Your task to perform on an android device: turn on wifi Image 0: 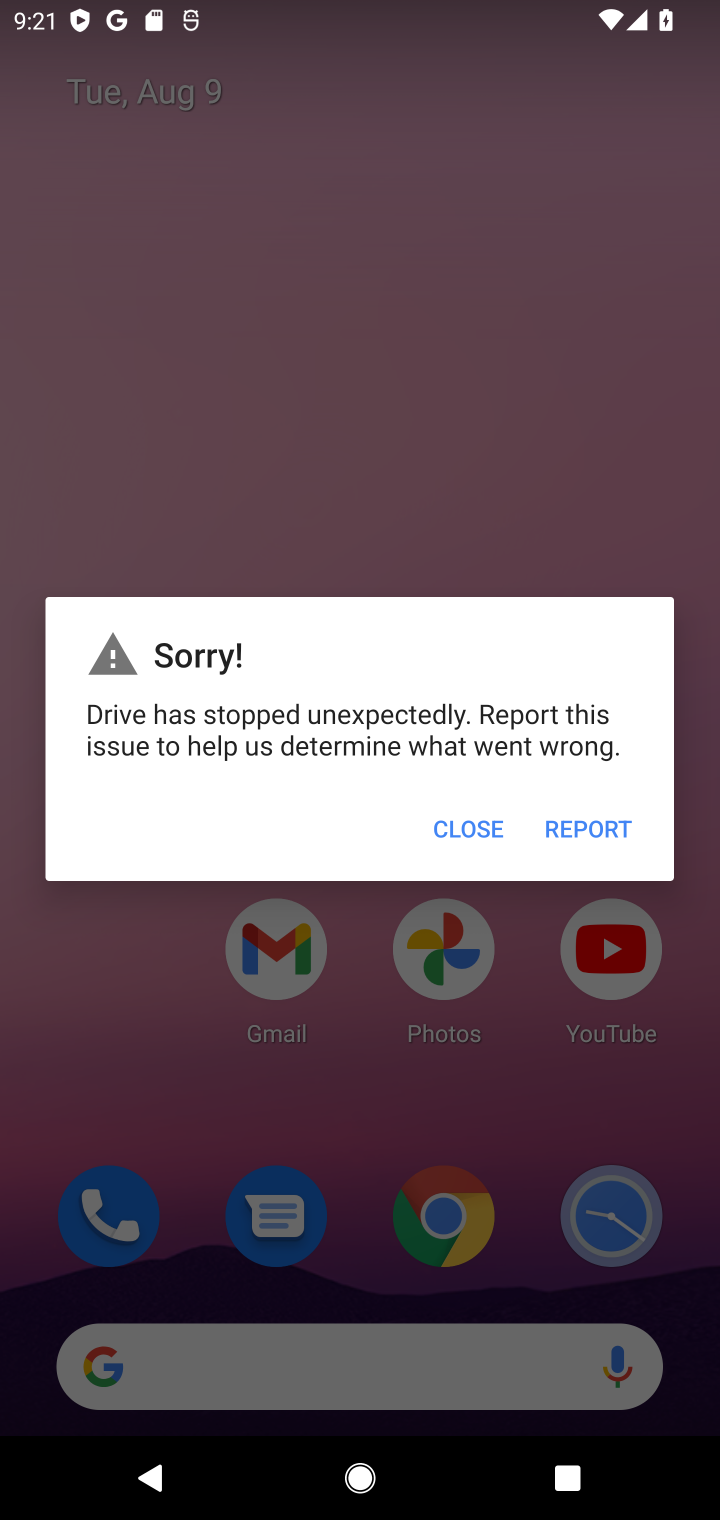
Step 0: click (474, 828)
Your task to perform on an android device: turn on wifi Image 1: 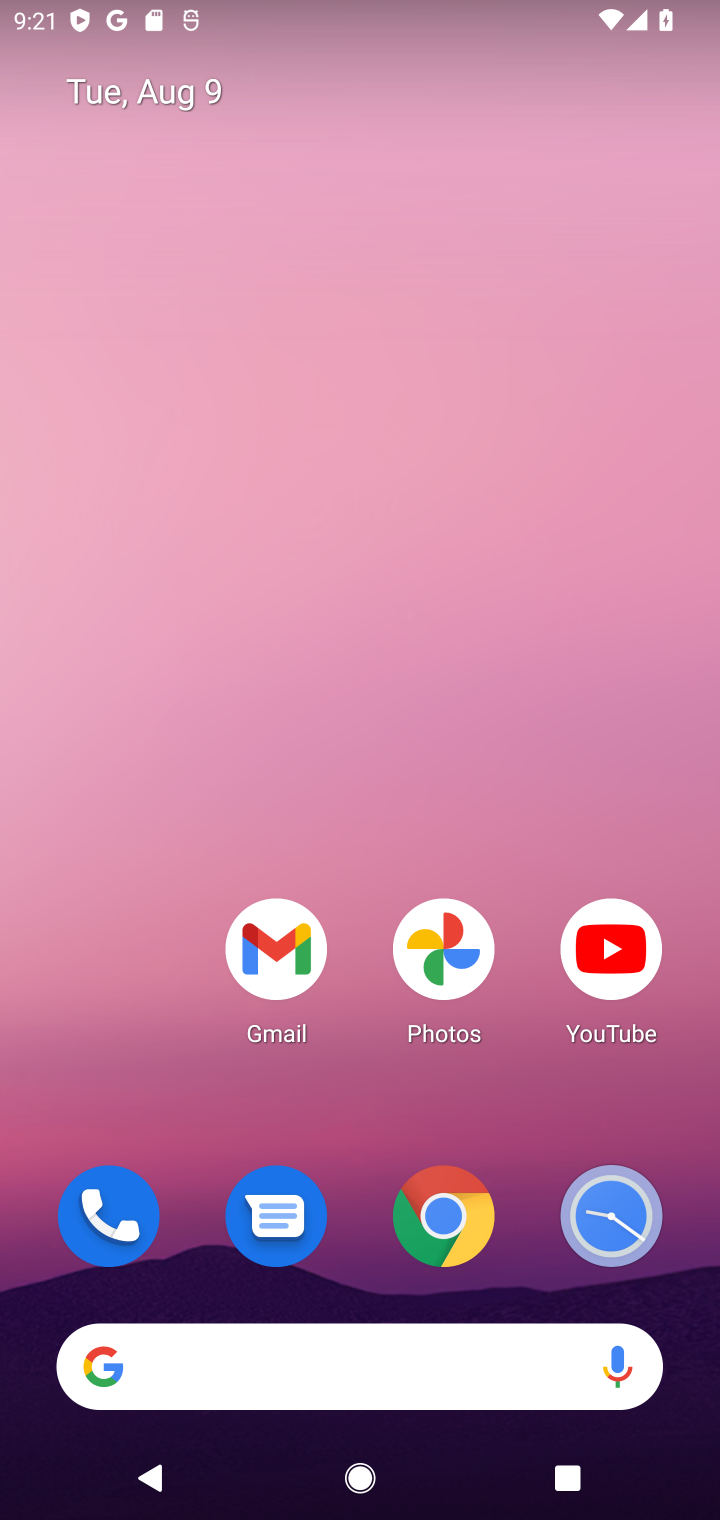
Step 1: drag from (346, 994) to (473, 251)
Your task to perform on an android device: turn on wifi Image 2: 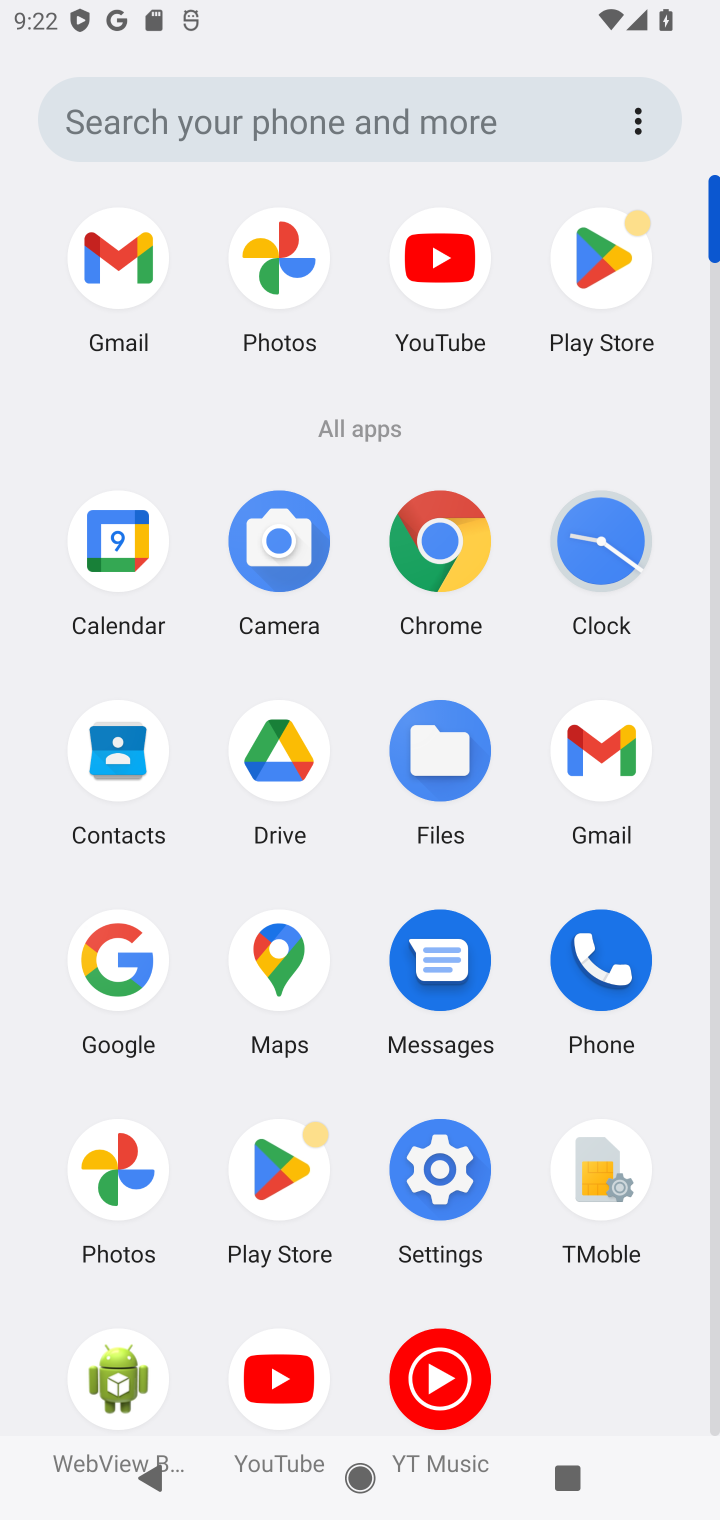
Step 2: click (438, 1165)
Your task to perform on an android device: turn on wifi Image 3: 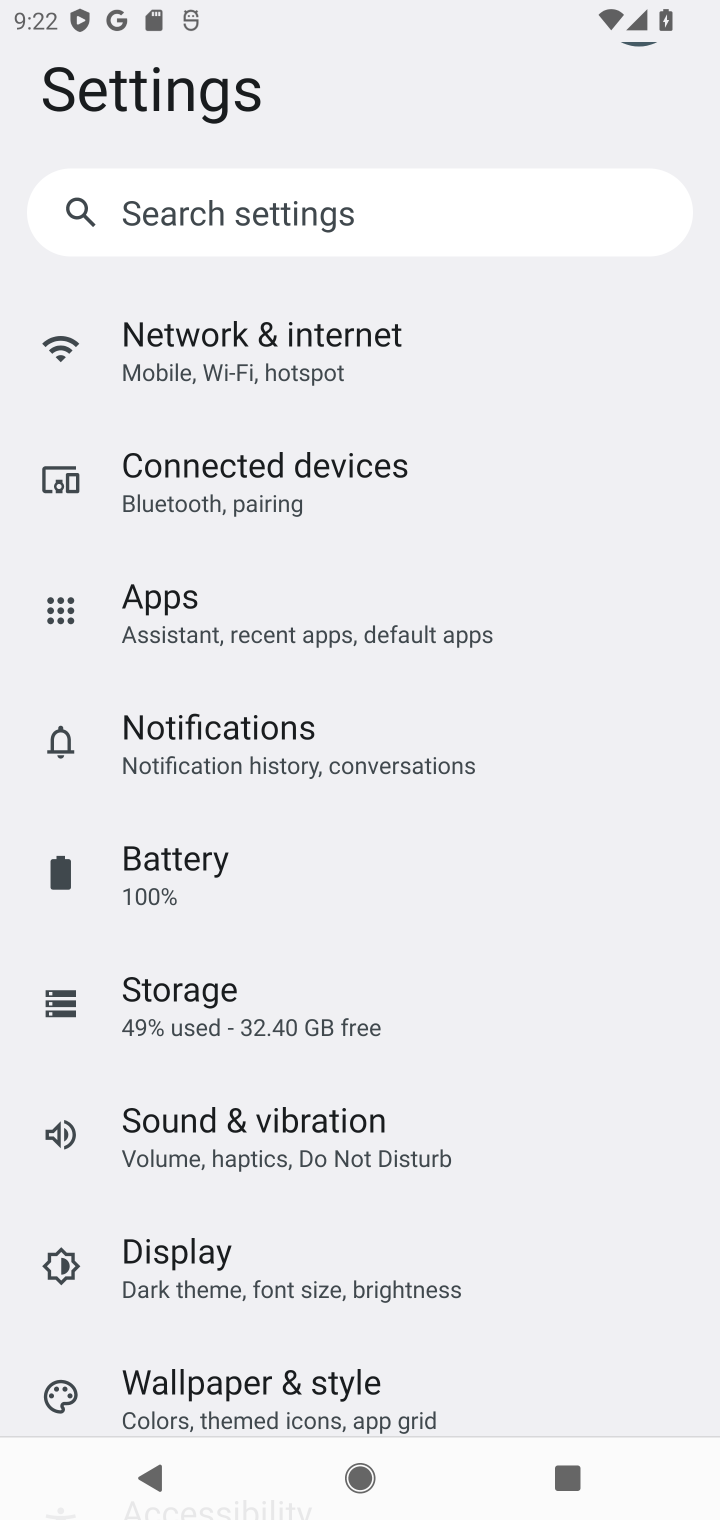
Step 3: click (206, 350)
Your task to perform on an android device: turn on wifi Image 4: 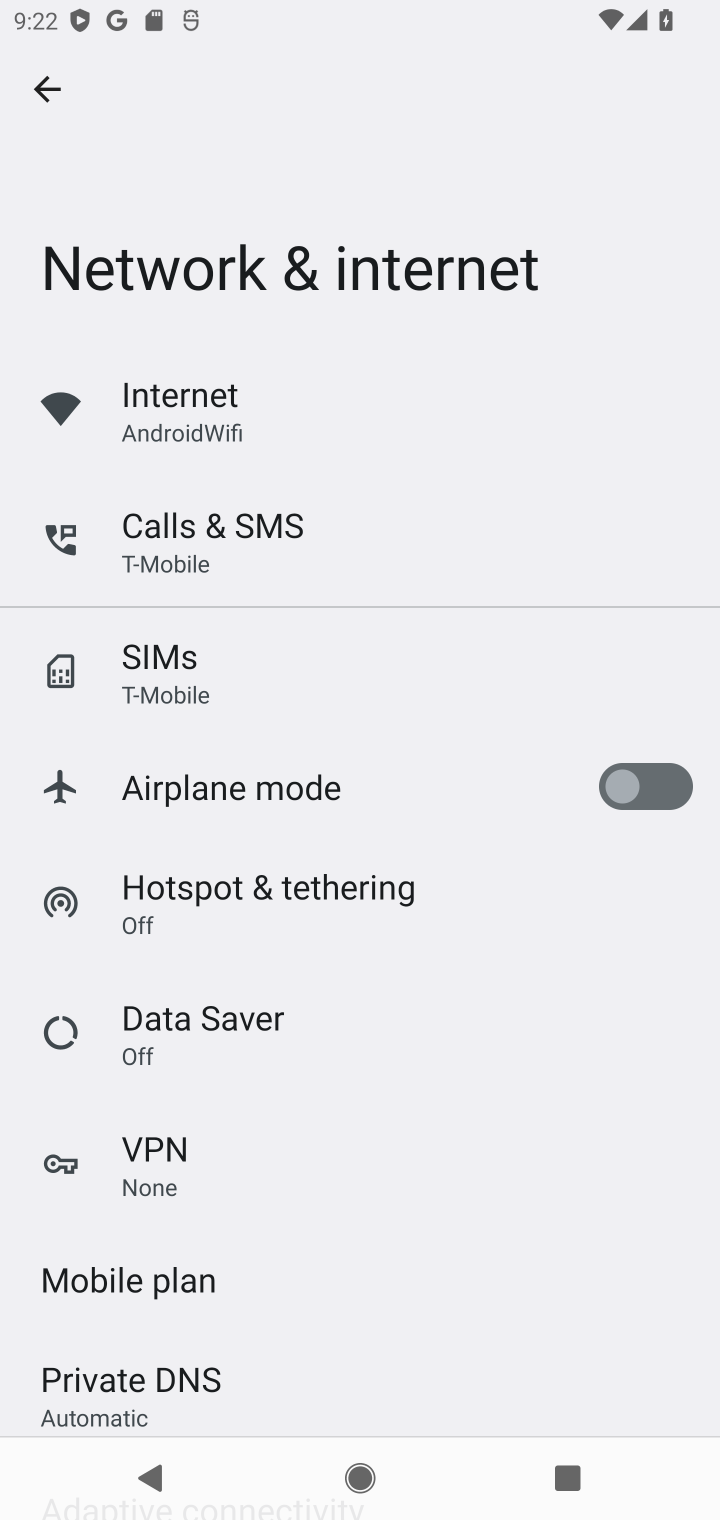
Step 4: click (210, 424)
Your task to perform on an android device: turn on wifi Image 5: 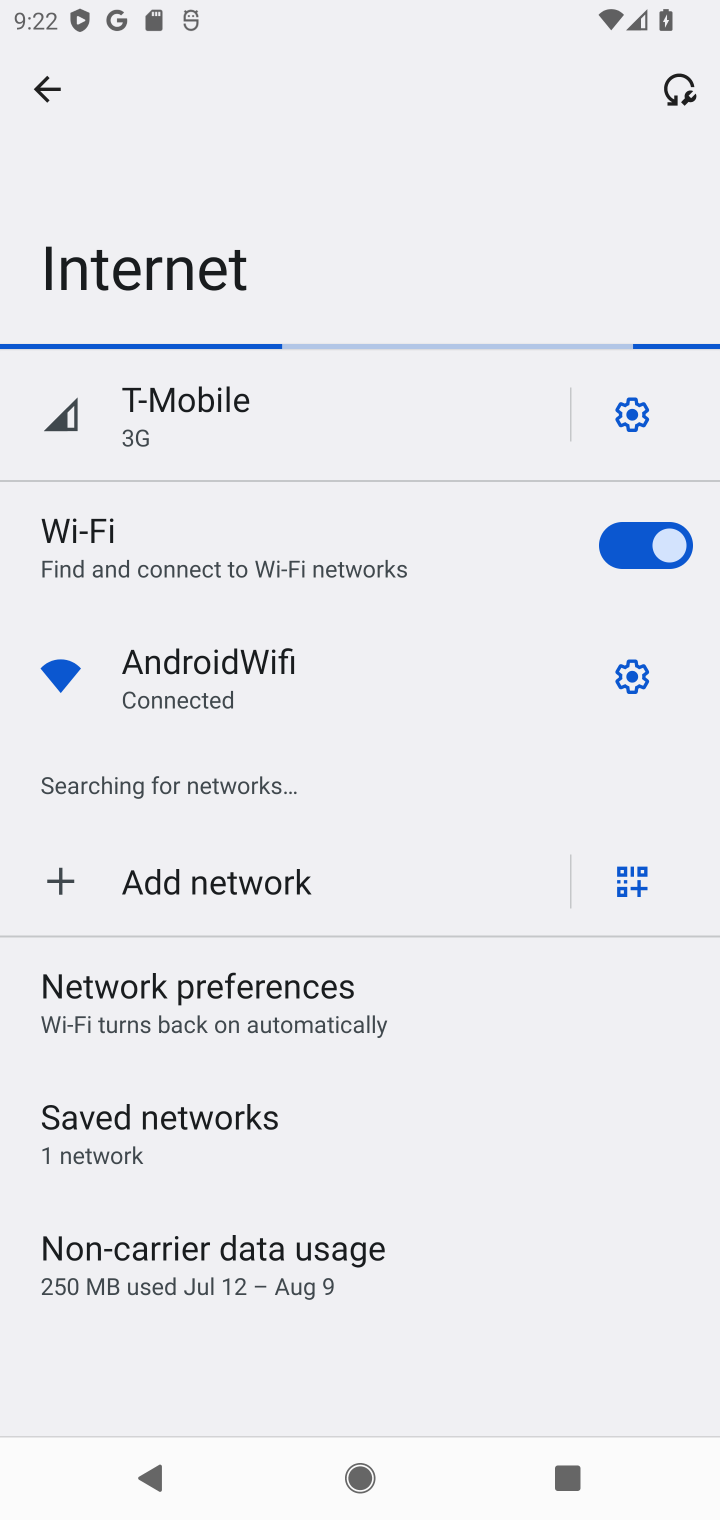
Step 5: click (615, 413)
Your task to perform on an android device: turn on wifi Image 6: 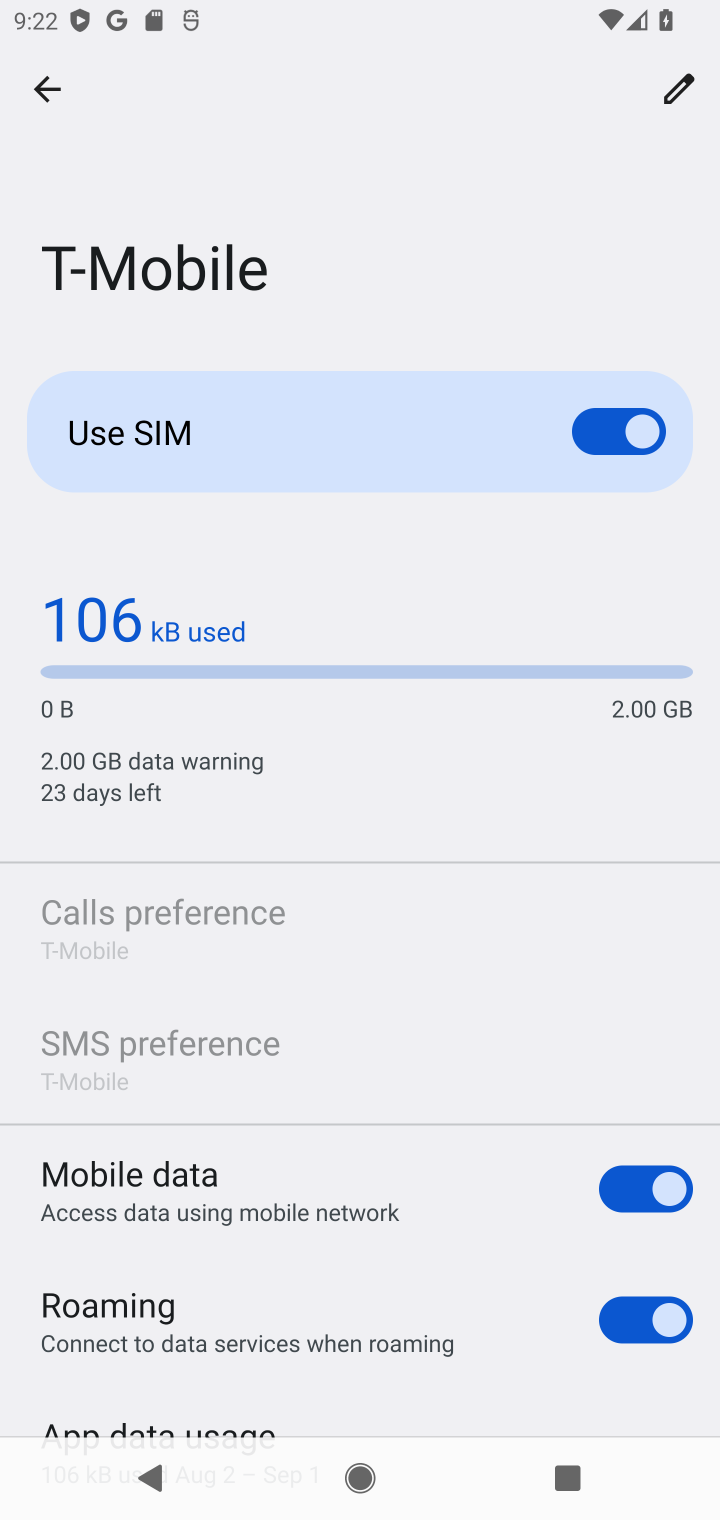
Step 6: drag from (345, 1310) to (360, 651)
Your task to perform on an android device: turn on wifi Image 7: 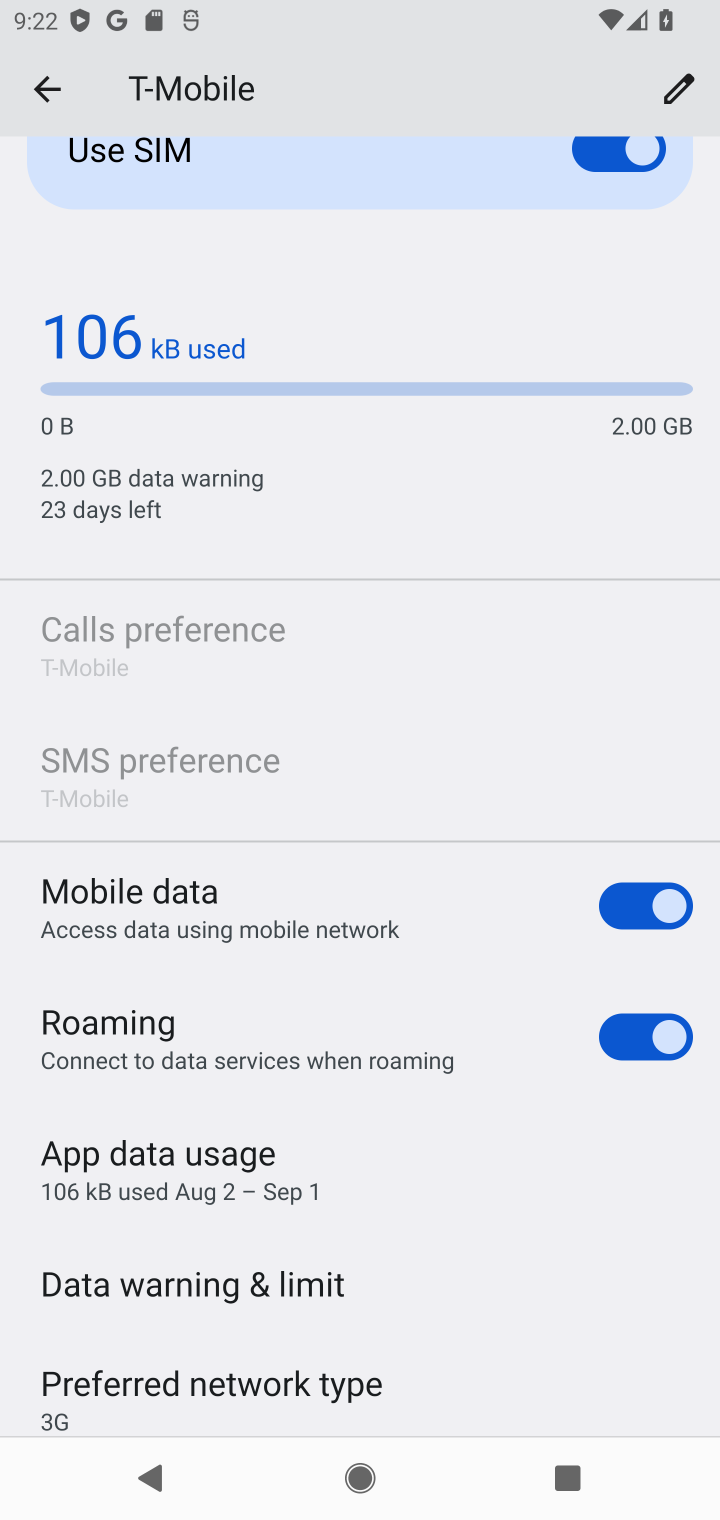
Step 7: click (35, 101)
Your task to perform on an android device: turn on wifi Image 8: 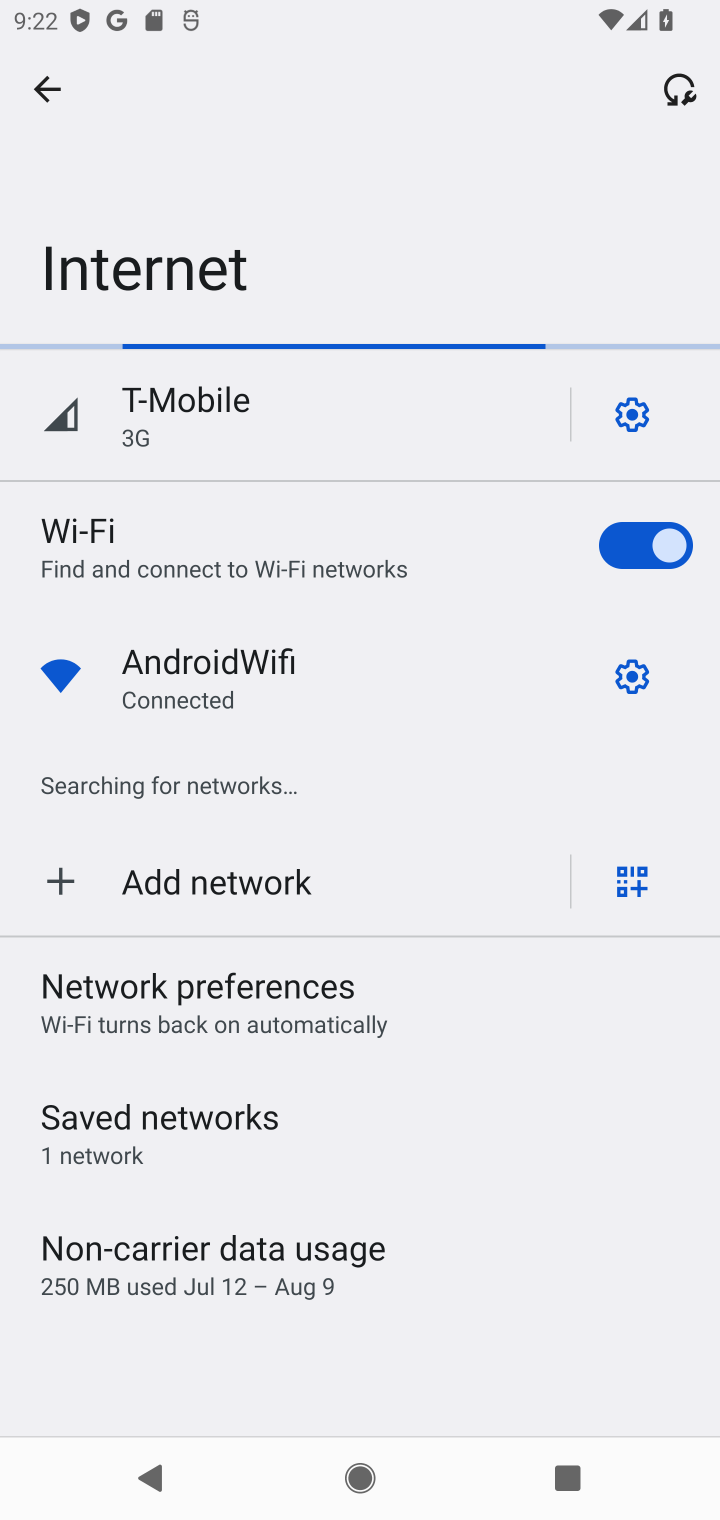
Step 8: click (640, 672)
Your task to perform on an android device: turn on wifi Image 9: 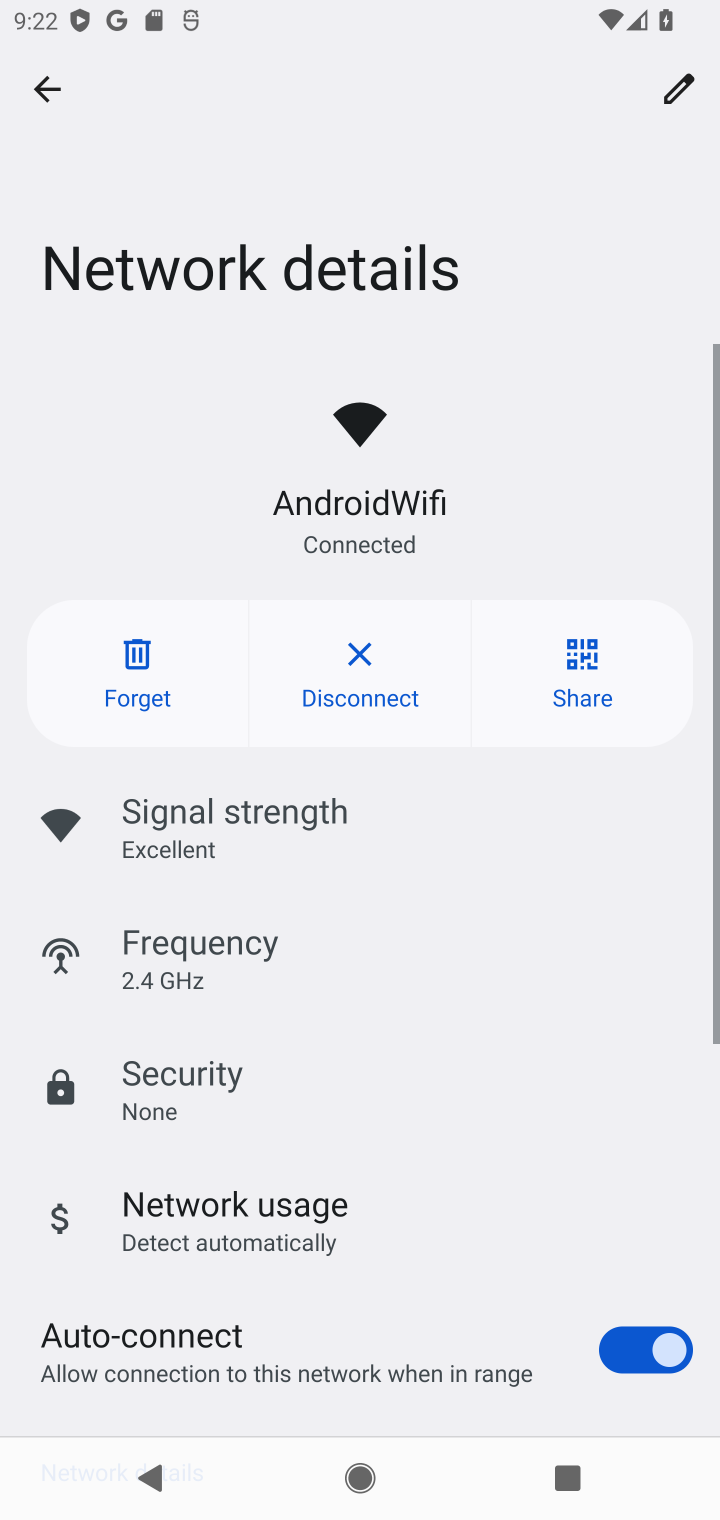
Step 9: task complete